Your task to perform on an android device: toggle improve location accuracy Image 0: 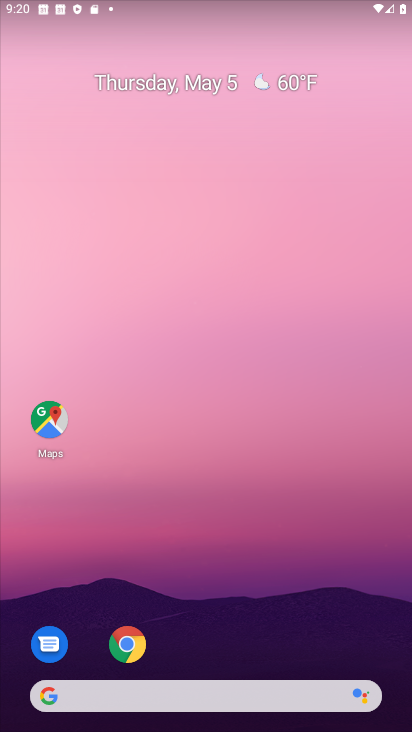
Step 0: drag from (211, 656) to (205, 200)
Your task to perform on an android device: toggle improve location accuracy Image 1: 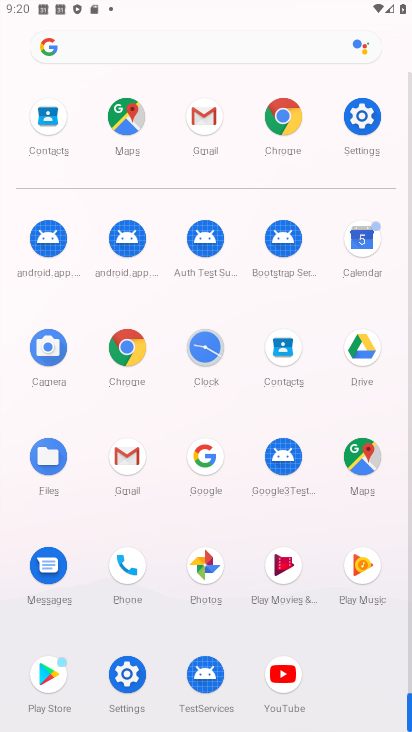
Step 1: click (358, 126)
Your task to perform on an android device: toggle improve location accuracy Image 2: 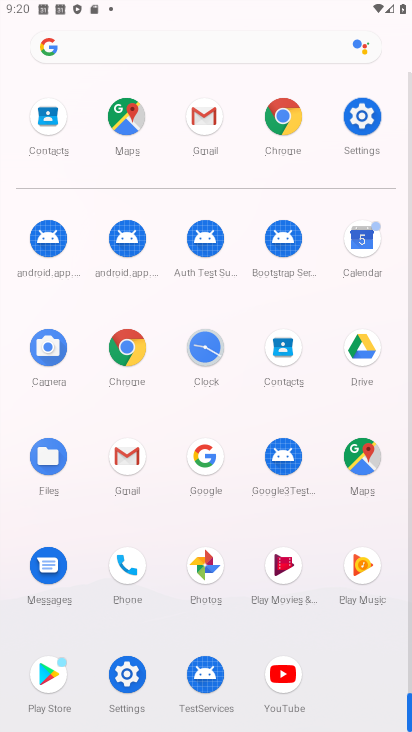
Step 2: click (358, 126)
Your task to perform on an android device: toggle improve location accuracy Image 3: 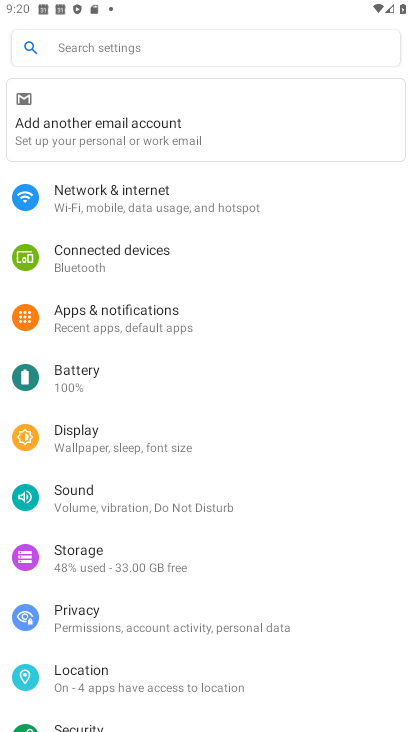
Step 3: click (116, 674)
Your task to perform on an android device: toggle improve location accuracy Image 4: 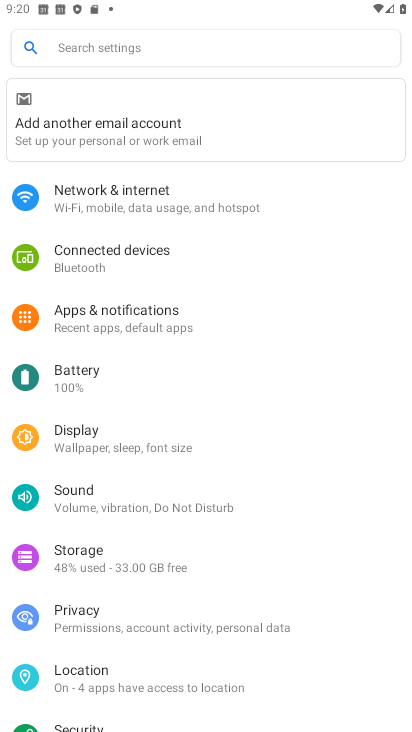
Step 4: click (116, 674)
Your task to perform on an android device: toggle improve location accuracy Image 5: 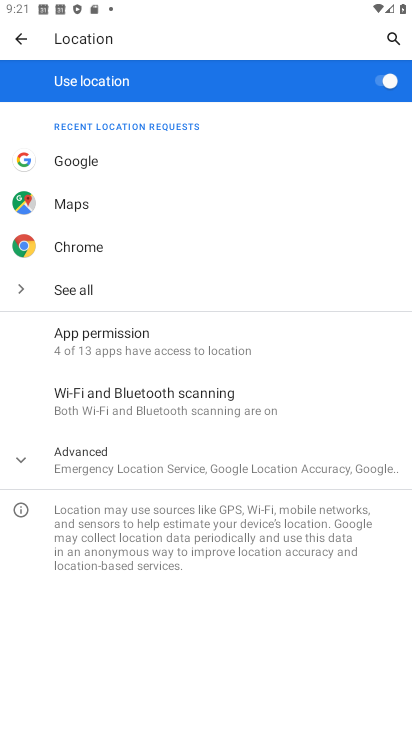
Step 5: click (93, 467)
Your task to perform on an android device: toggle improve location accuracy Image 6: 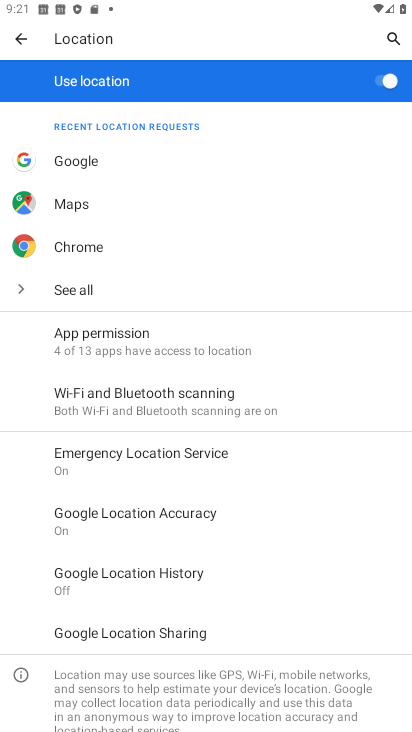
Step 6: click (161, 516)
Your task to perform on an android device: toggle improve location accuracy Image 7: 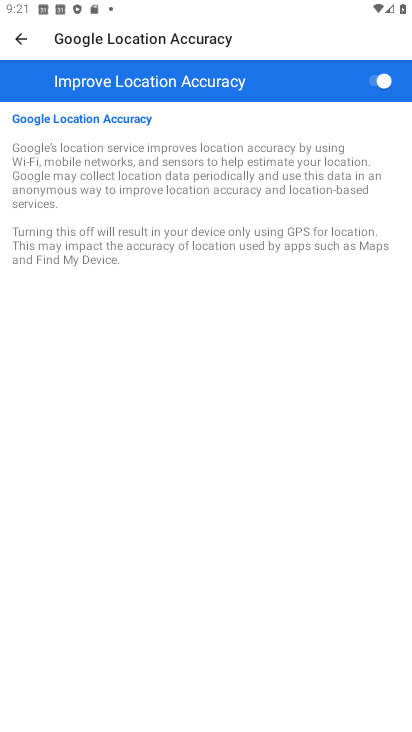
Step 7: click (383, 77)
Your task to perform on an android device: toggle improve location accuracy Image 8: 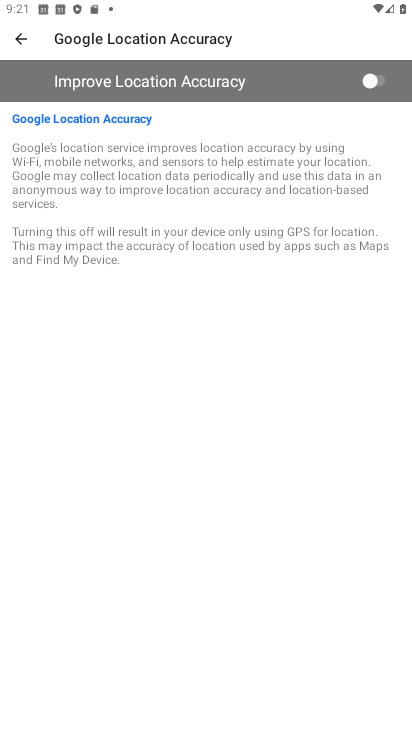
Step 8: task complete